Your task to perform on an android device: uninstall "Reddit" Image 0: 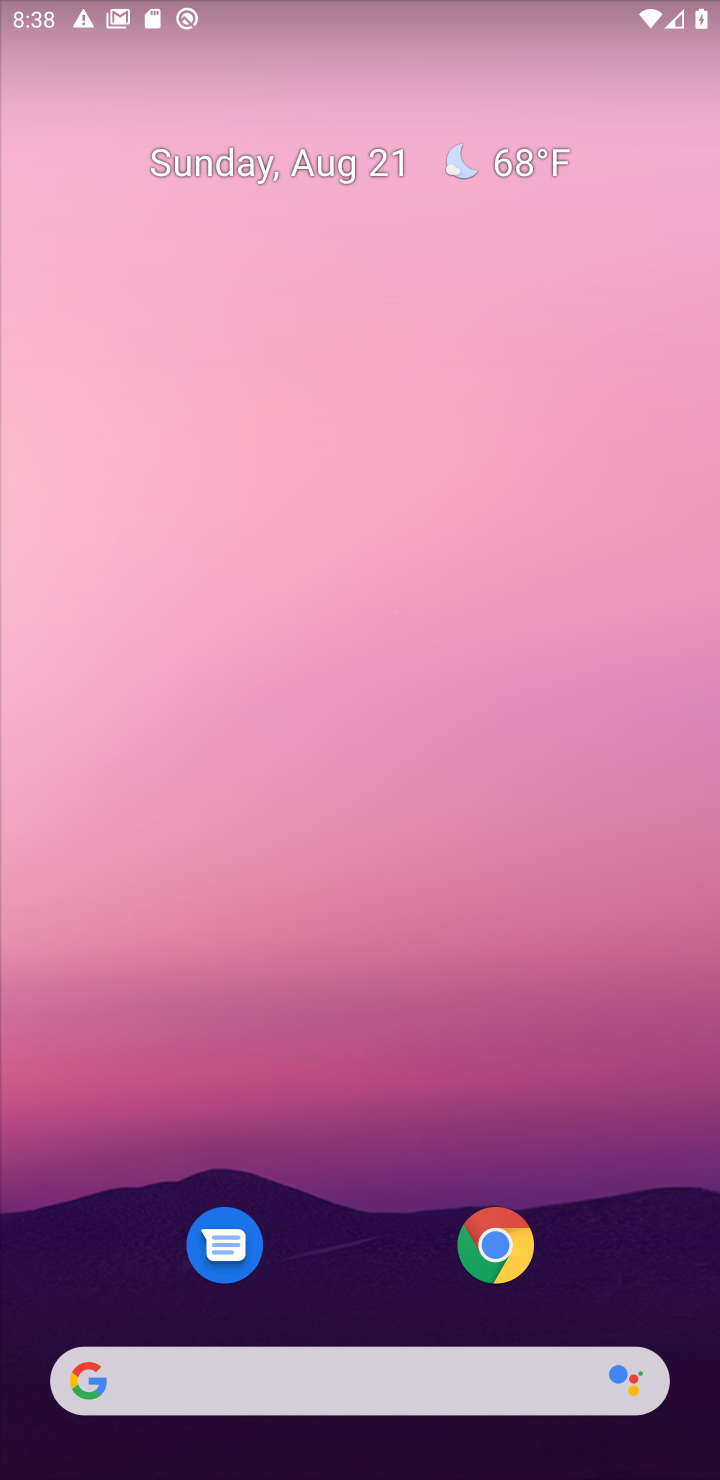
Step 0: drag from (411, 1354) to (555, 1040)
Your task to perform on an android device: uninstall "Reddit" Image 1: 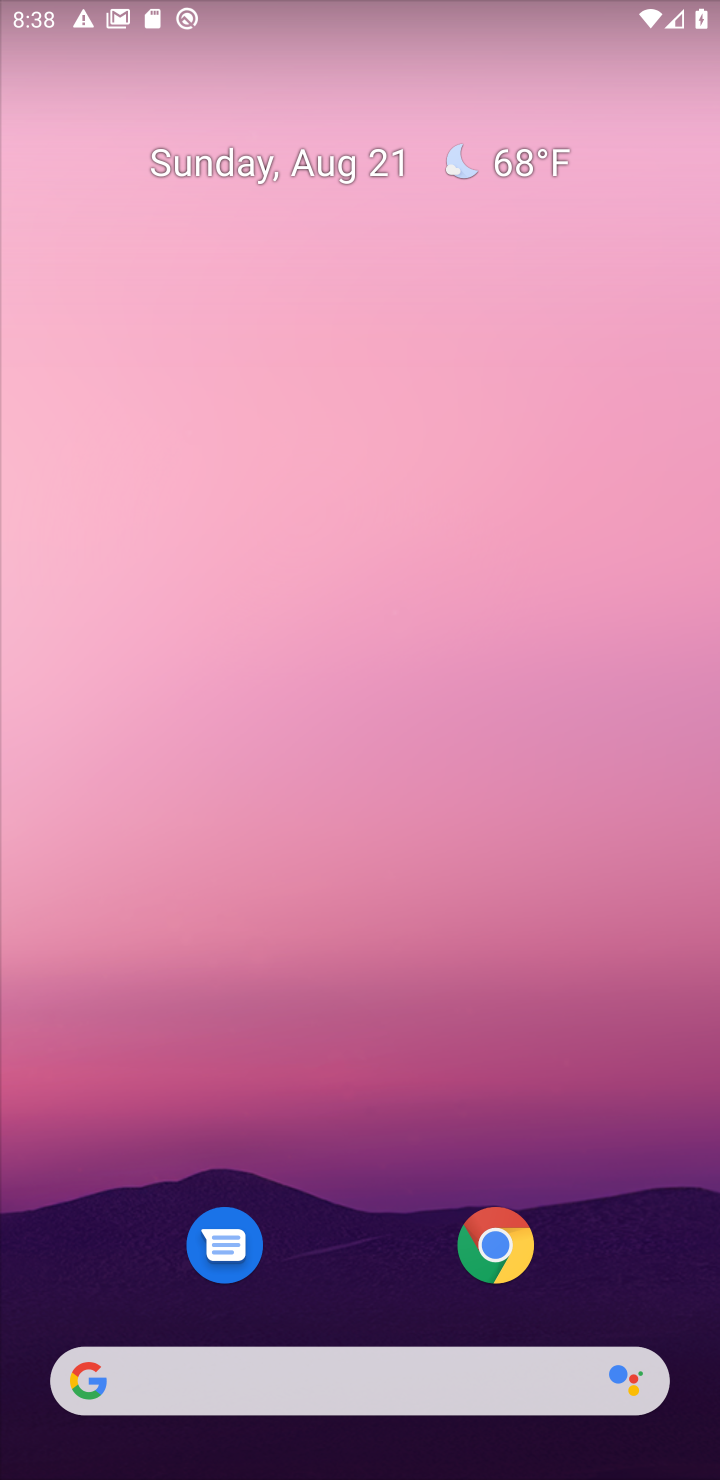
Step 1: drag from (363, 1304) to (510, 21)
Your task to perform on an android device: uninstall "Reddit" Image 2: 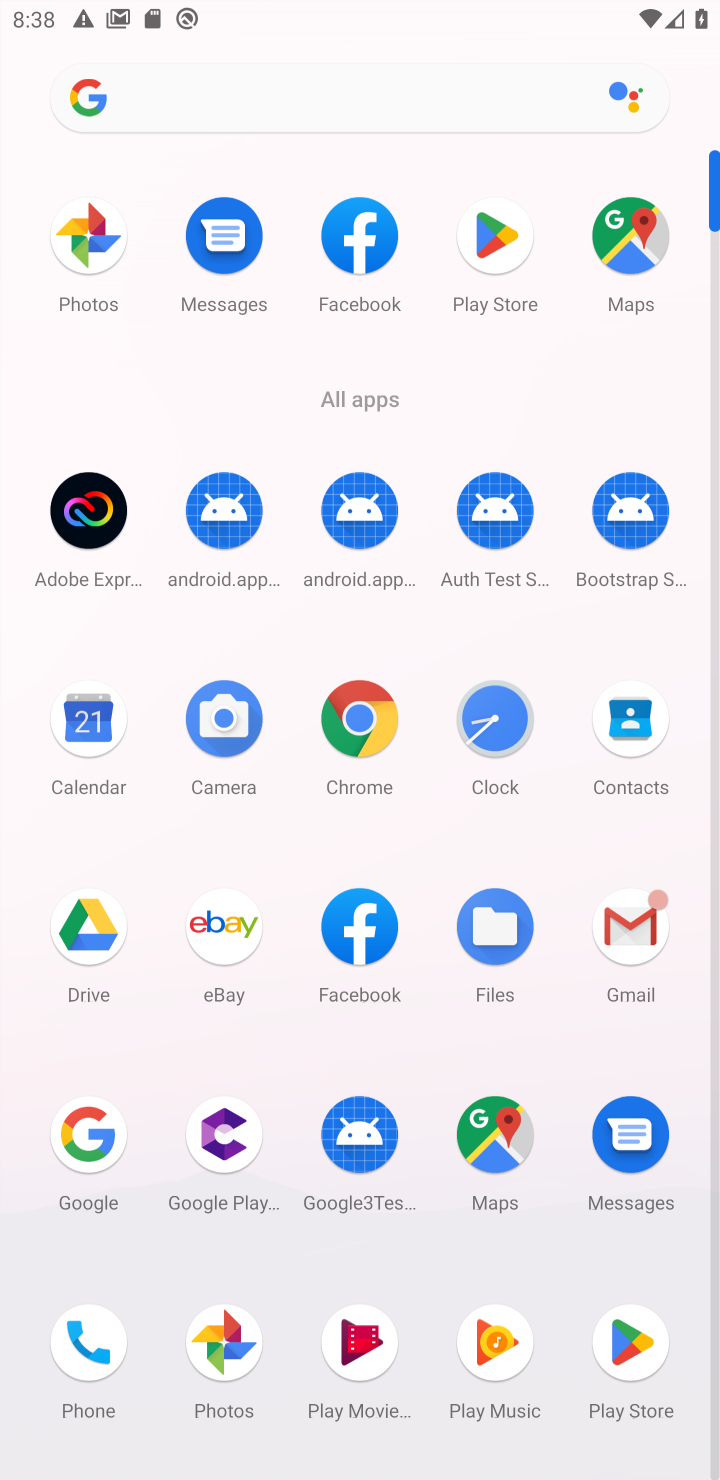
Step 2: click (592, 1303)
Your task to perform on an android device: uninstall "Reddit" Image 3: 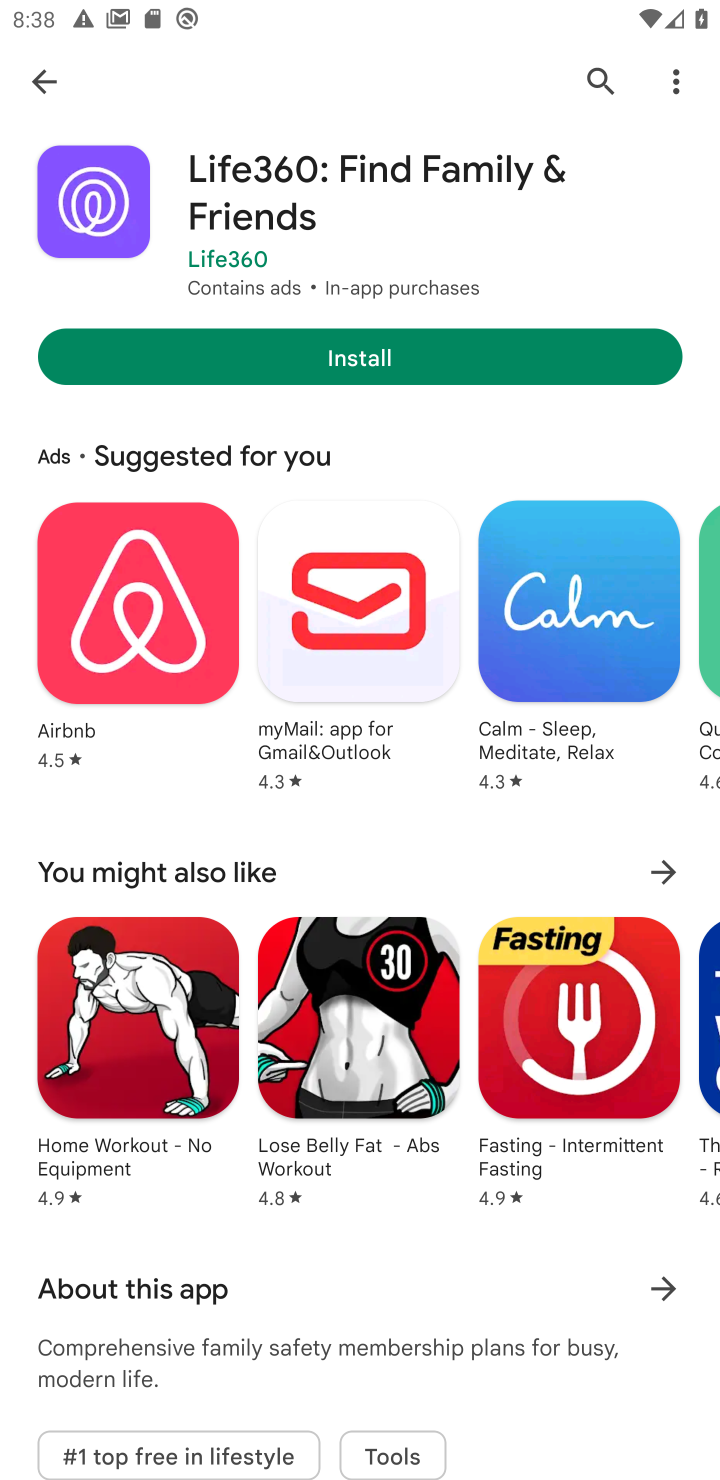
Step 3: click (58, 77)
Your task to perform on an android device: uninstall "Reddit" Image 4: 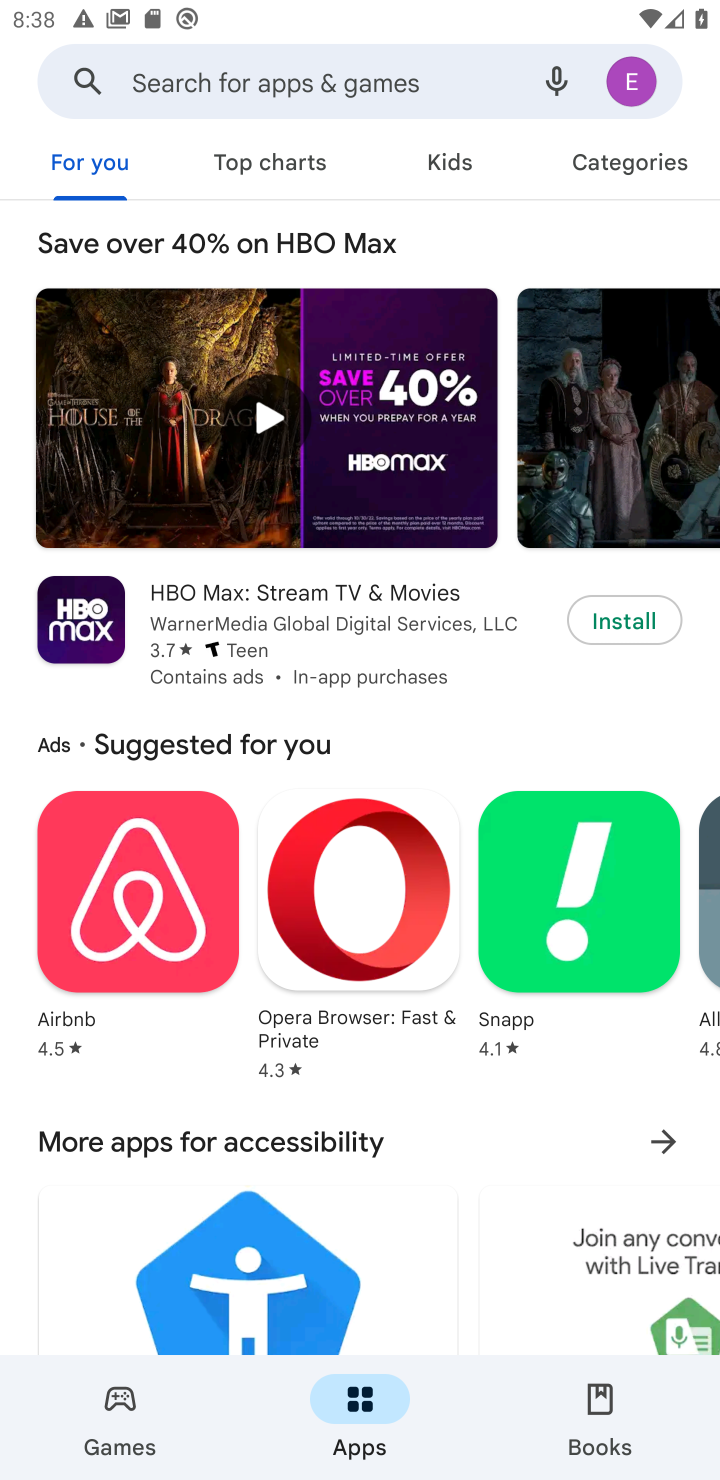
Step 4: click (336, 72)
Your task to perform on an android device: uninstall "Reddit" Image 5: 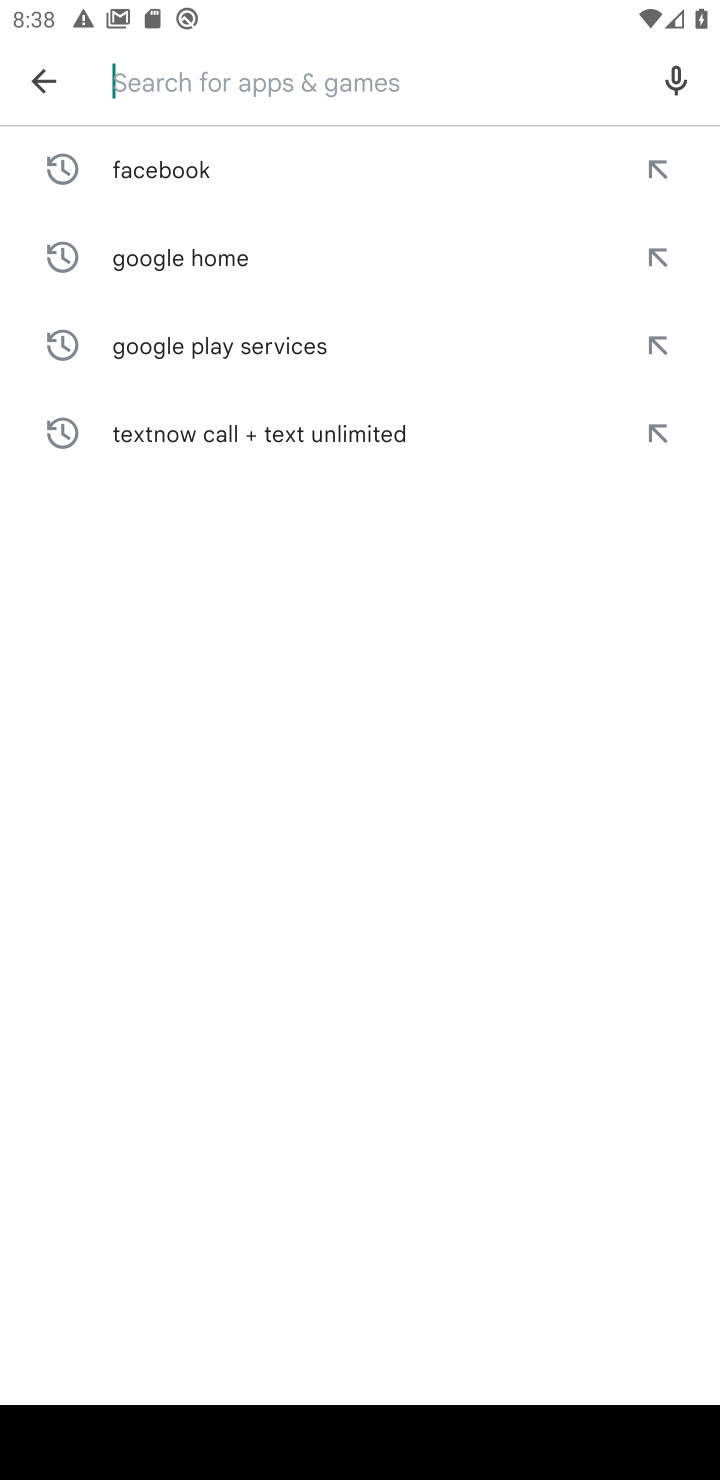
Step 5: type "Reddit"
Your task to perform on an android device: uninstall "Reddit" Image 6: 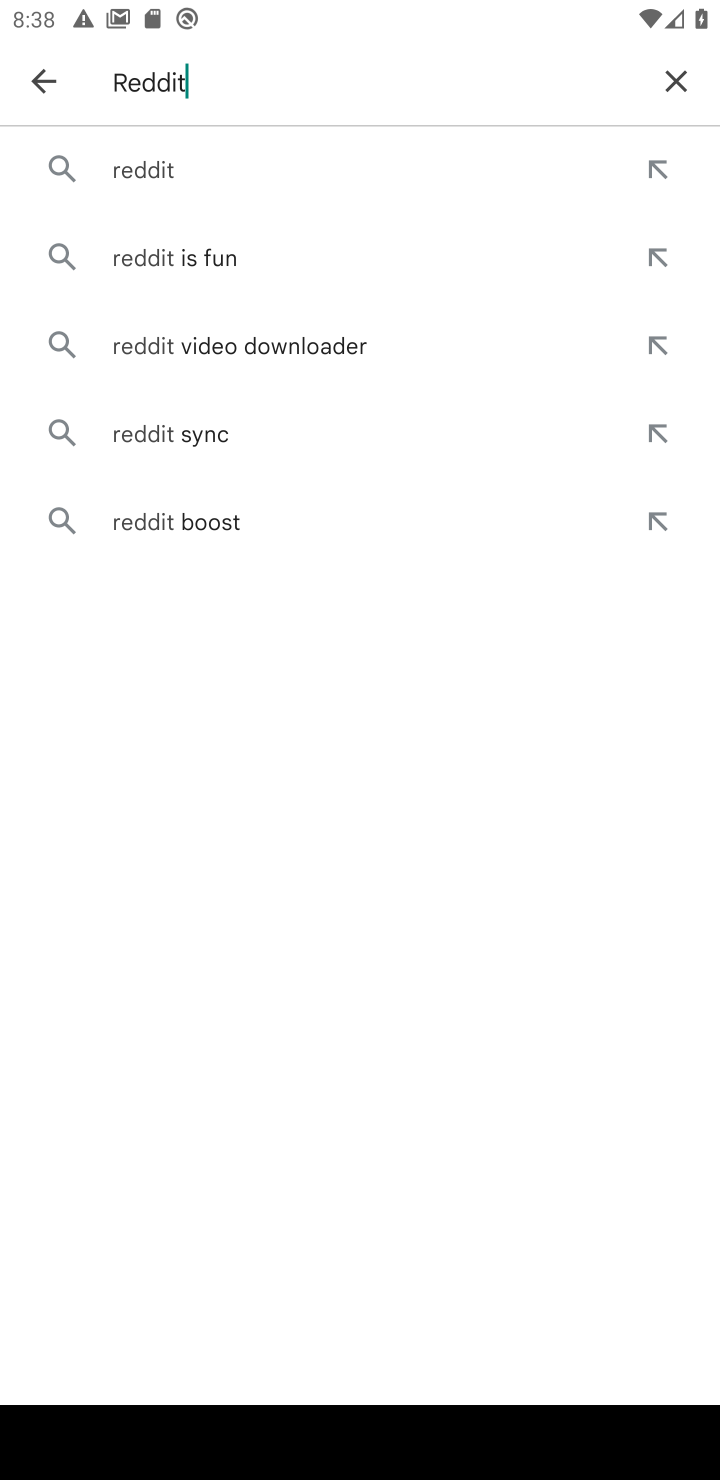
Step 6: click (176, 157)
Your task to perform on an android device: uninstall "Reddit" Image 7: 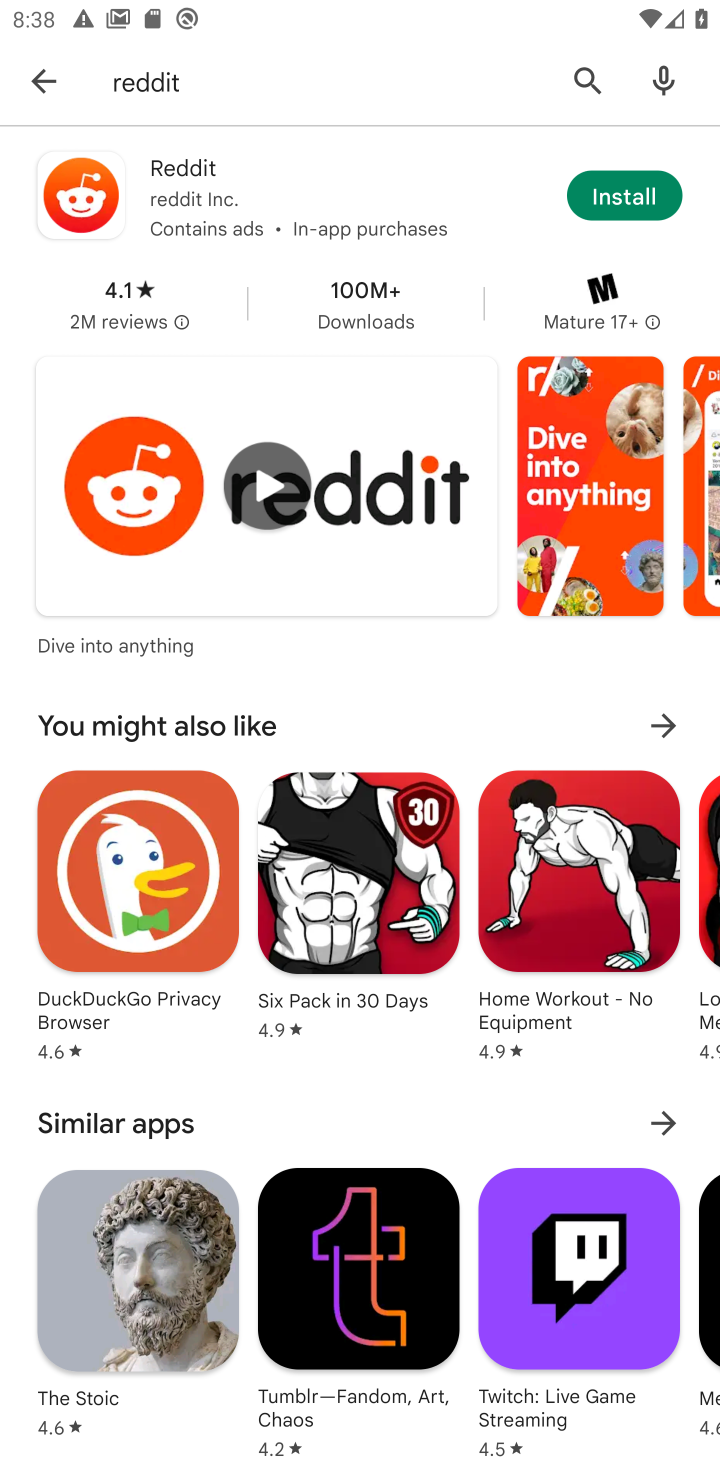
Step 7: task complete